Your task to perform on an android device: open app "Facebook Messenger" (install if not already installed) Image 0: 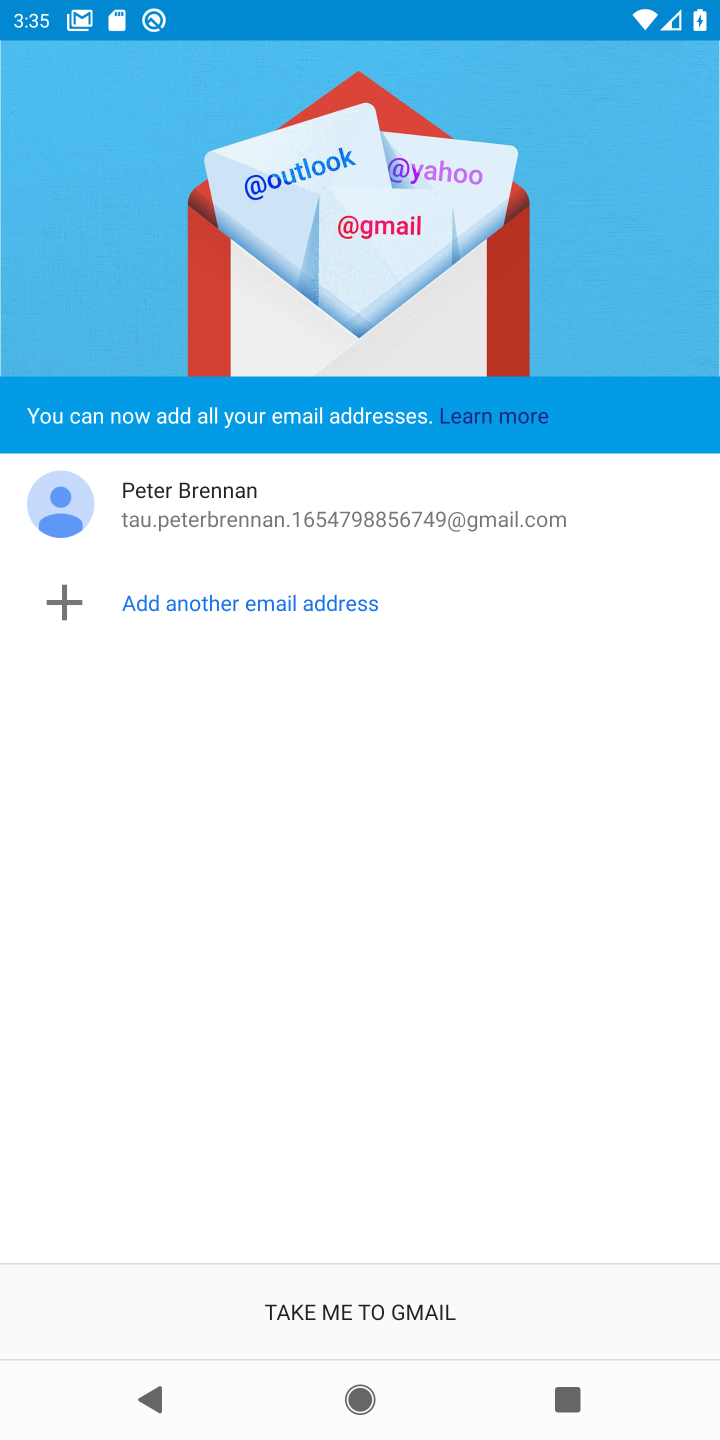
Step 0: press home button
Your task to perform on an android device: open app "Facebook Messenger" (install if not already installed) Image 1: 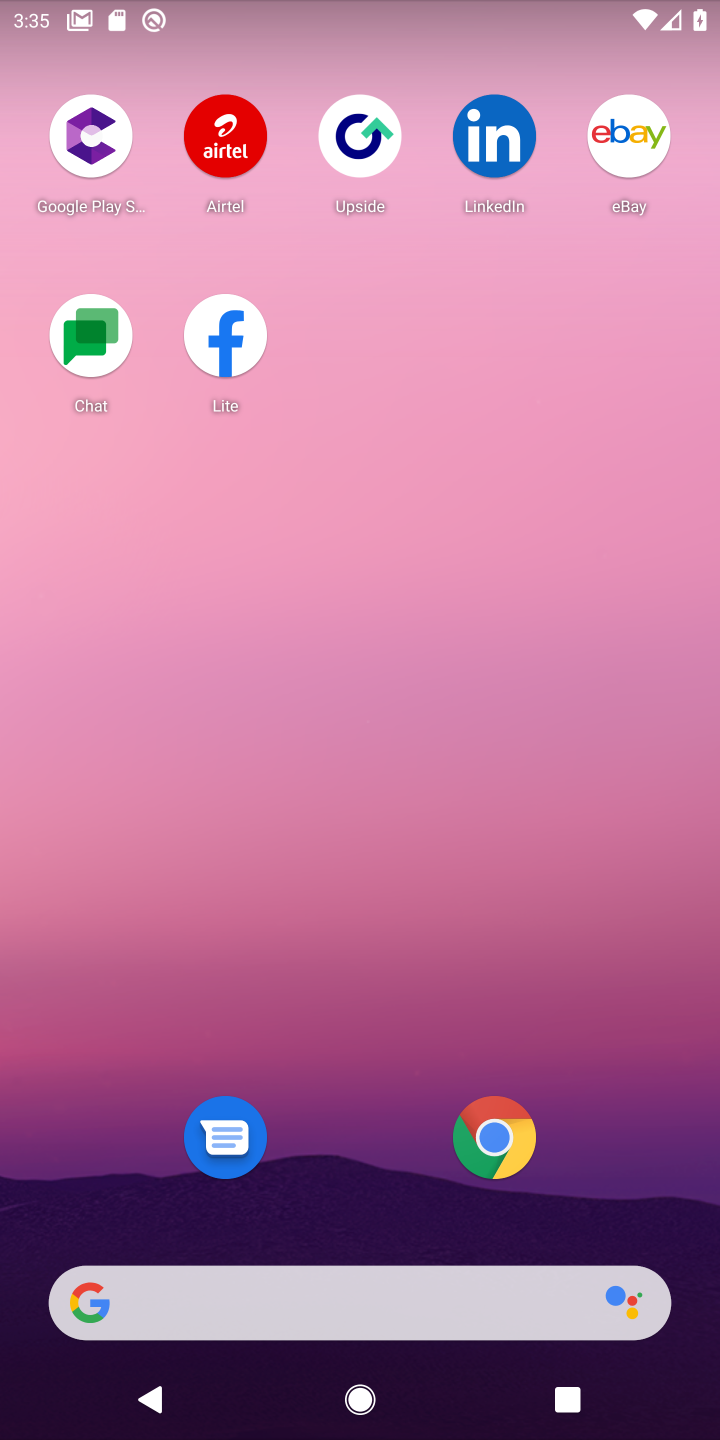
Step 1: drag from (388, 1142) to (365, 0)
Your task to perform on an android device: open app "Facebook Messenger" (install if not already installed) Image 2: 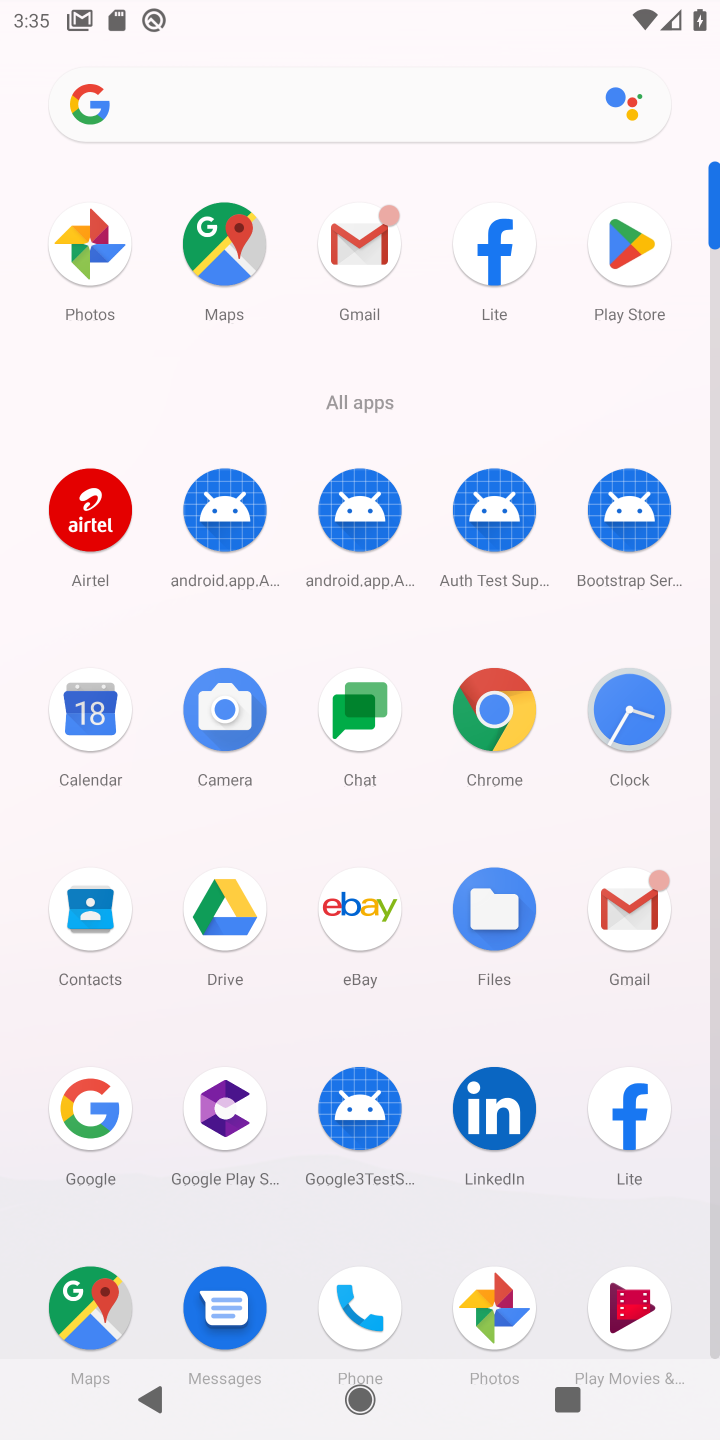
Step 2: click (610, 258)
Your task to perform on an android device: open app "Facebook Messenger" (install if not already installed) Image 3: 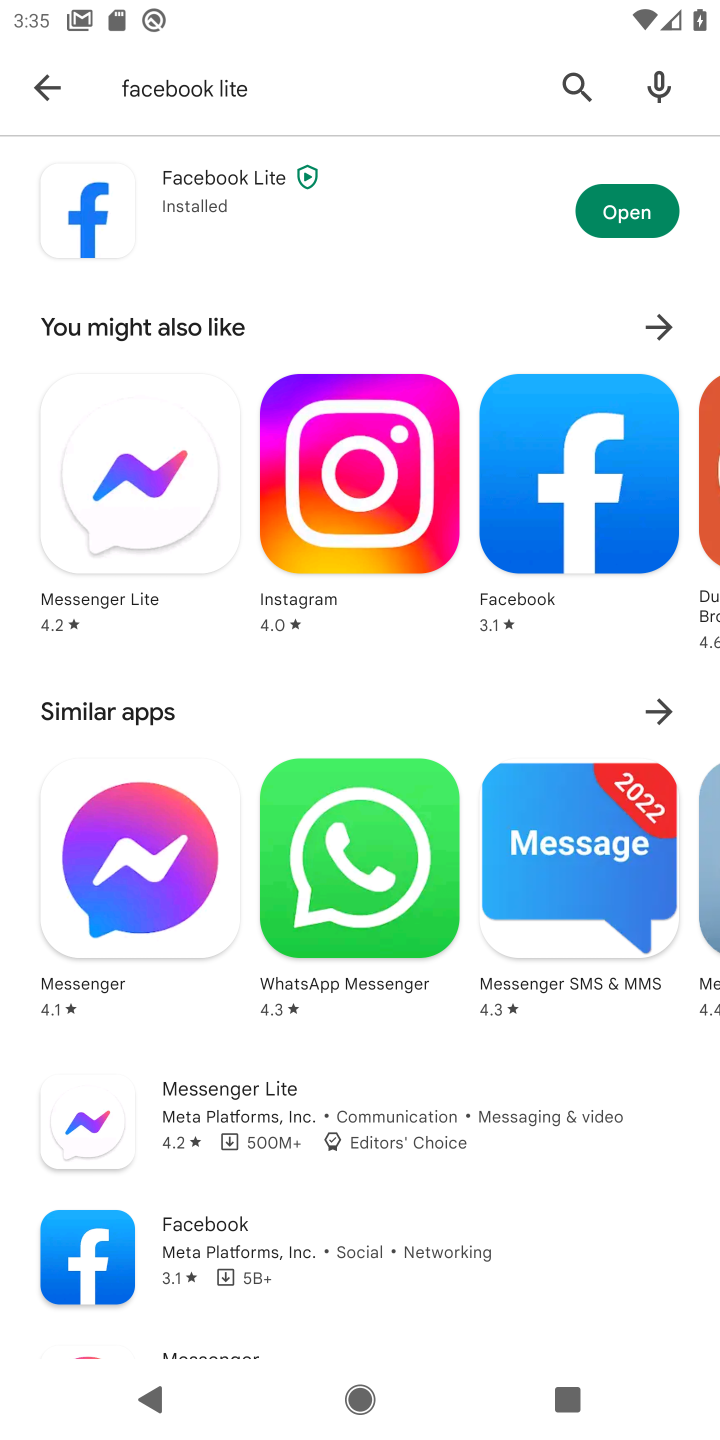
Step 3: click (45, 78)
Your task to perform on an android device: open app "Facebook Messenger" (install if not already installed) Image 4: 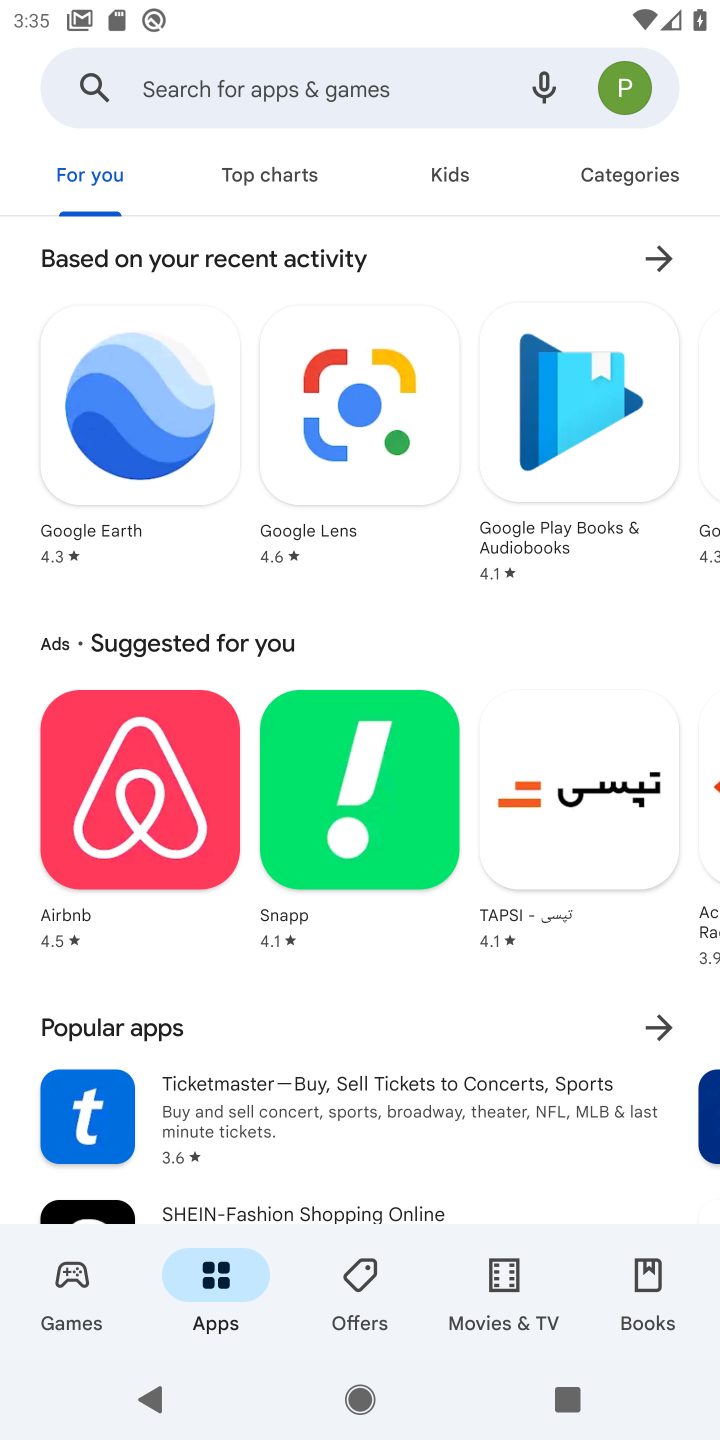
Step 4: click (209, 91)
Your task to perform on an android device: open app "Facebook Messenger" (install if not already installed) Image 5: 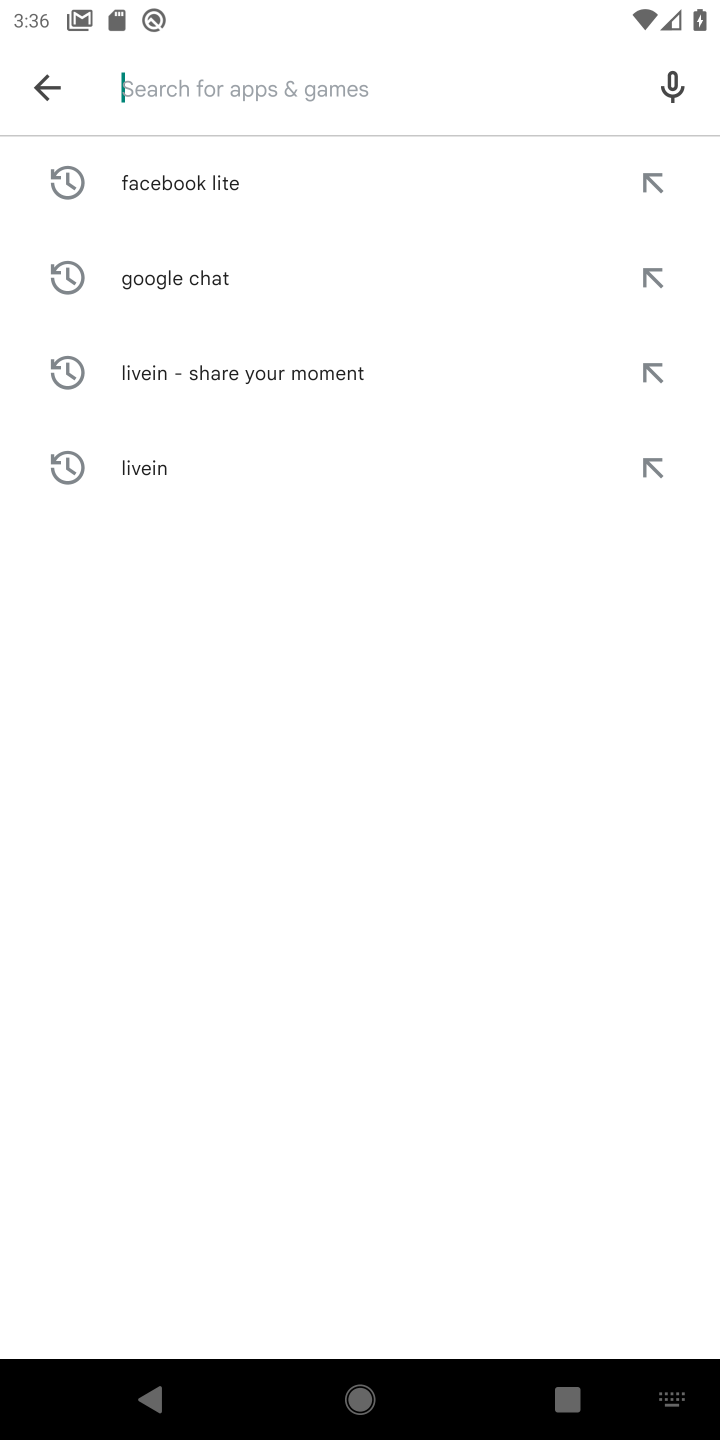
Step 5: type "Facebook Messenger"
Your task to perform on an android device: open app "Facebook Messenger" (install if not already installed) Image 6: 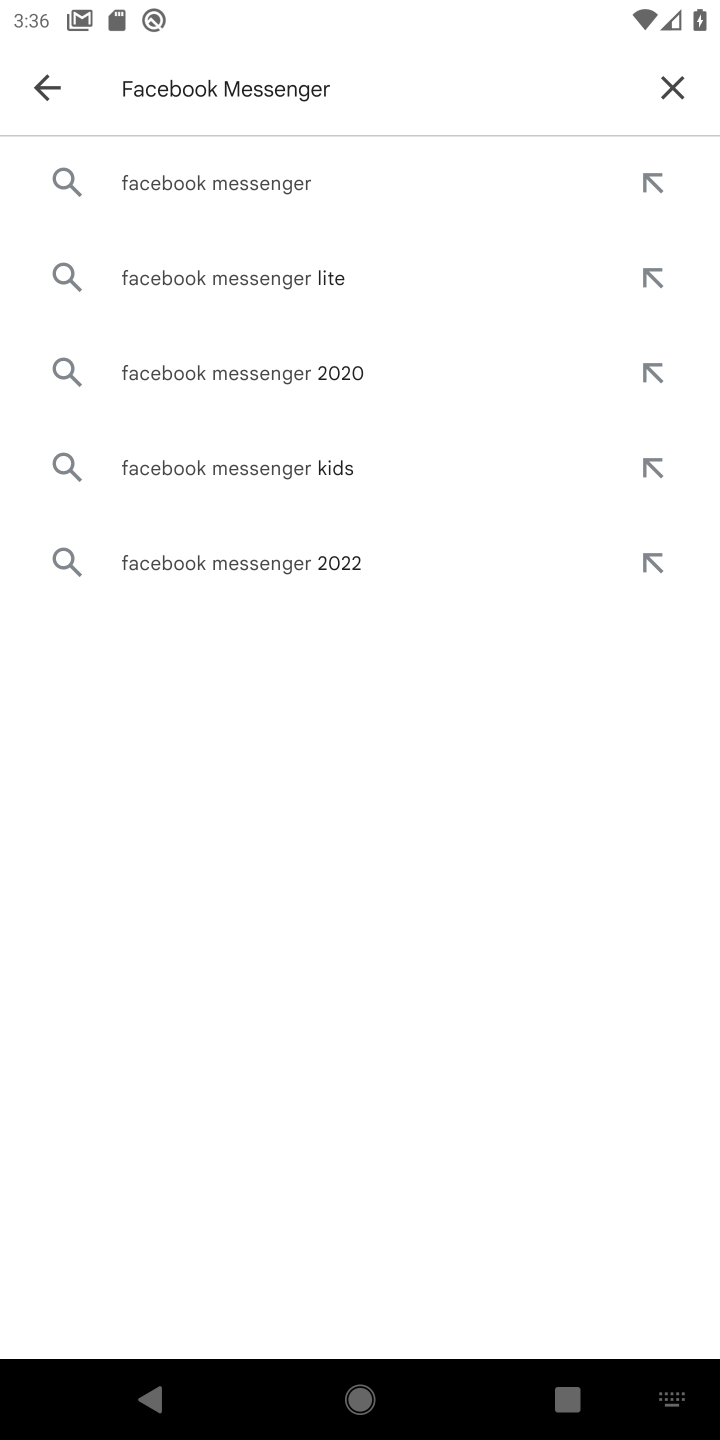
Step 6: click (202, 182)
Your task to perform on an android device: open app "Facebook Messenger" (install if not already installed) Image 7: 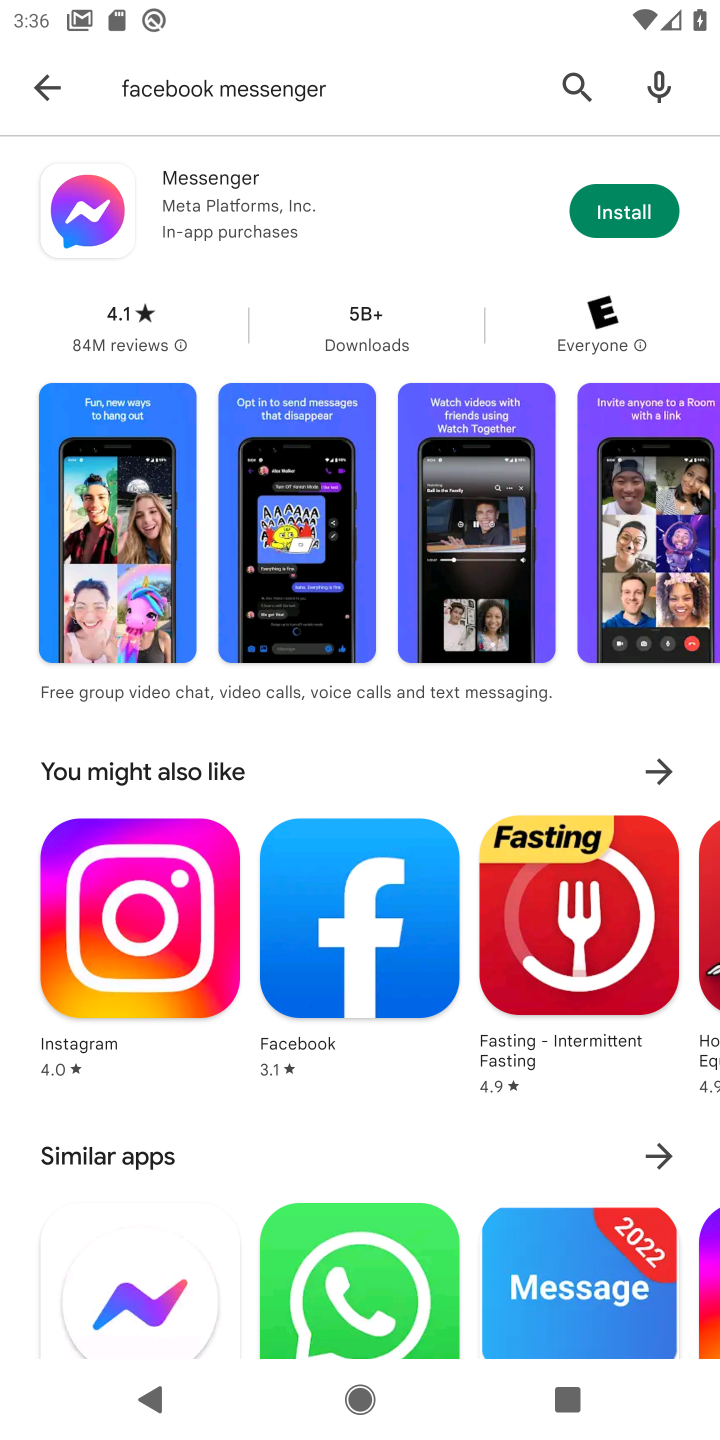
Step 7: click (632, 213)
Your task to perform on an android device: open app "Facebook Messenger" (install if not already installed) Image 8: 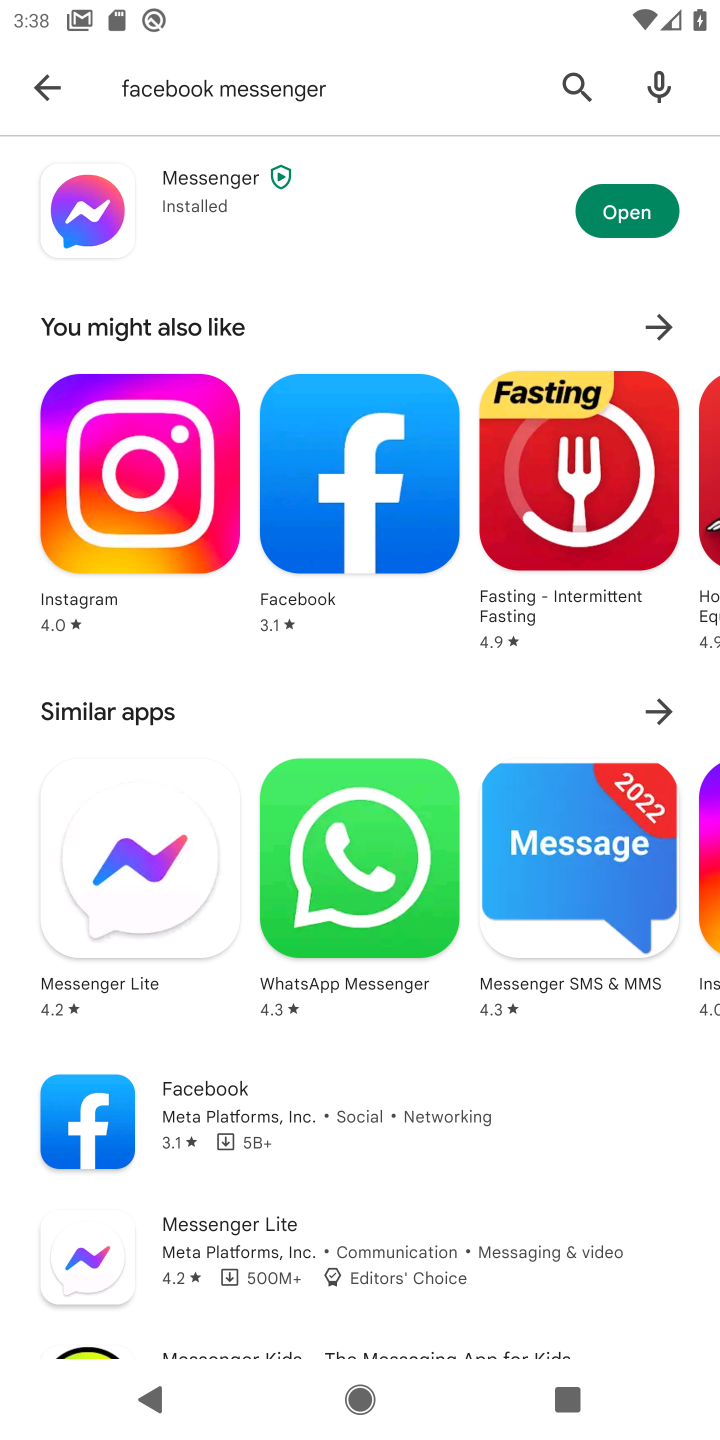
Step 8: click (632, 213)
Your task to perform on an android device: open app "Facebook Messenger" (install if not already installed) Image 9: 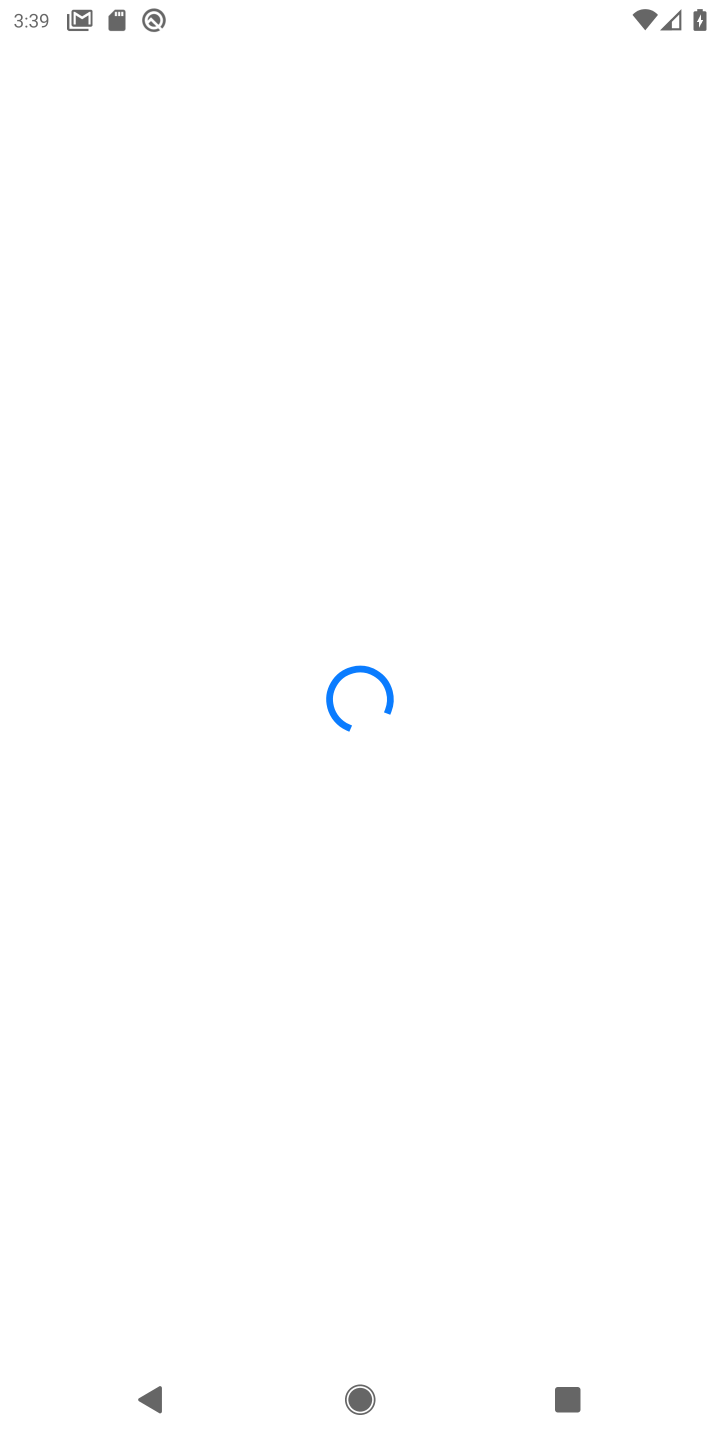
Step 9: task complete